Your task to perform on an android device: Open ESPN.com Image 0: 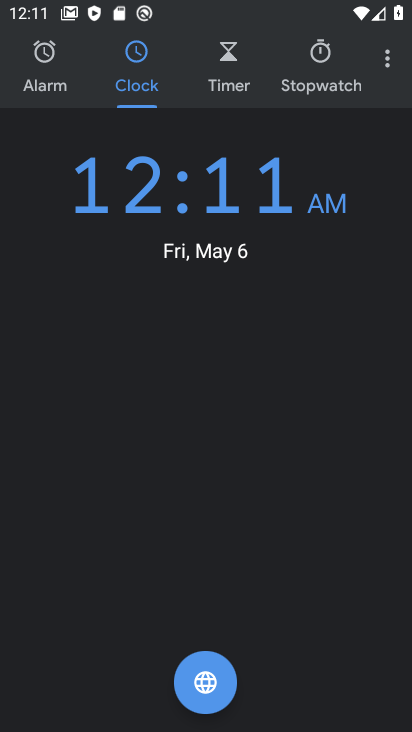
Step 0: press back button
Your task to perform on an android device: Open ESPN.com Image 1: 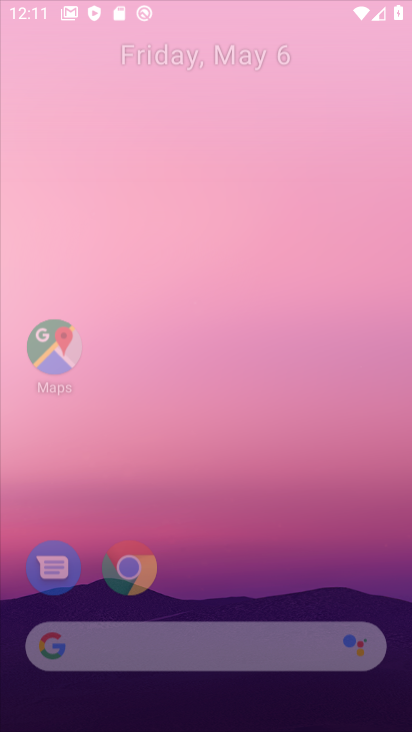
Step 1: press home button
Your task to perform on an android device: Open ESPN.com Image 2: 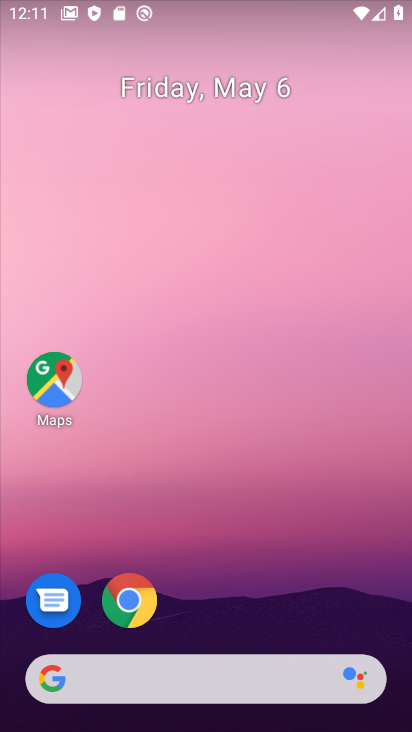
Step 2: click (136, 618)
Your task to perform on an android device: Open ESPN.com Image 3: 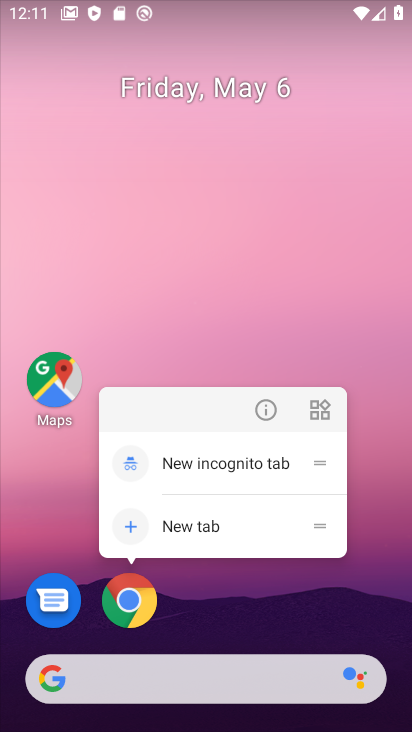
Step 3: click (138, 607)
Your task to perform on an android device: Open ESPN.com Image 4: 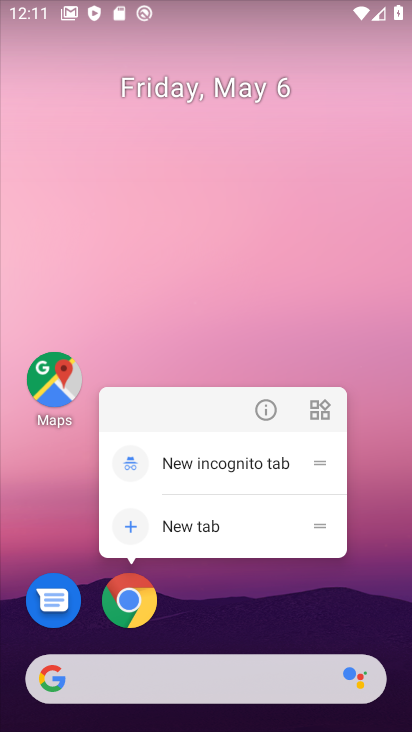
Step 4: click (137, 606)
Your task to perform on an android device: Open ESPN.com Image 5: 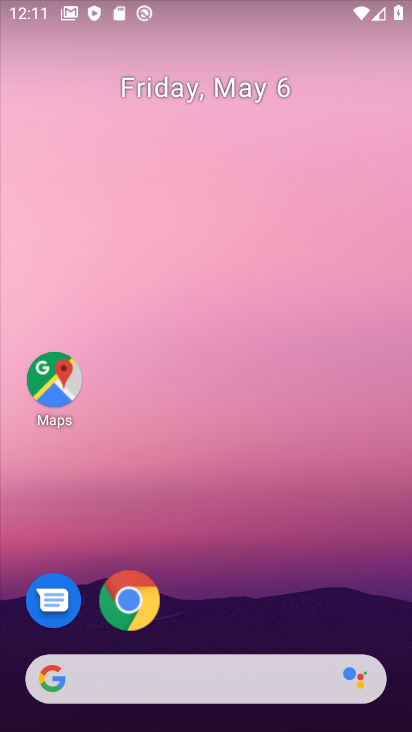
Step 5: click (137, 606)
Your task to perform on an android device: Open ESPN.com Image 6: 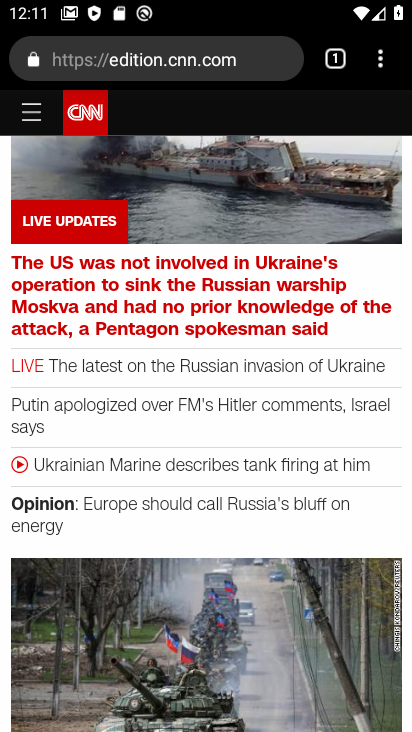
Step 6: press back button
Your task to perform on an android device: Open ESPN.com Image 7: 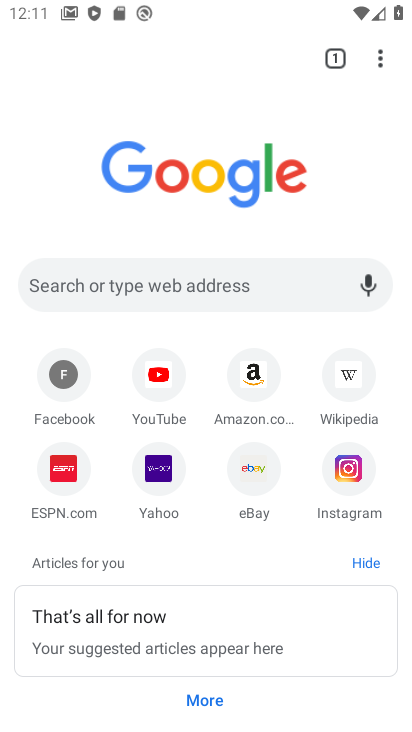
Step 7: click (71, 475)
Your task to perform on an android device: Open ESPN.com Image 8: 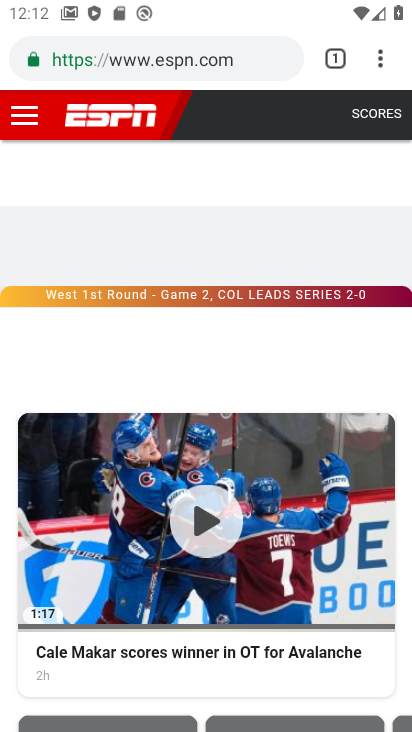
Step 8: task complete